Your task to perform on an android device: set default search engine in the chrome app Image 0: 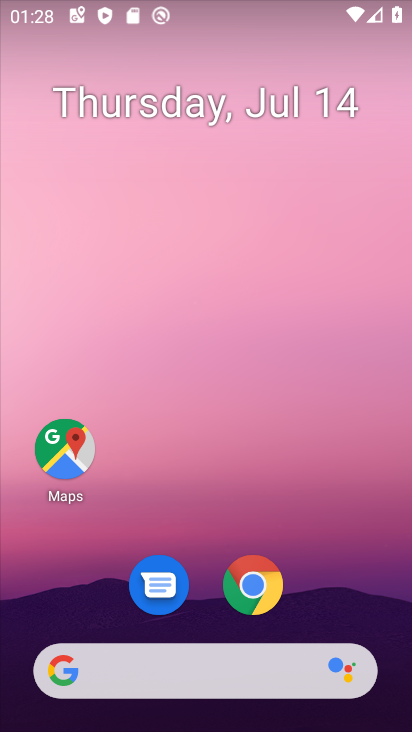
Step 0: click (255, 570)
Your task to perform on an android device: set default search engine in the chrome app Image 1: 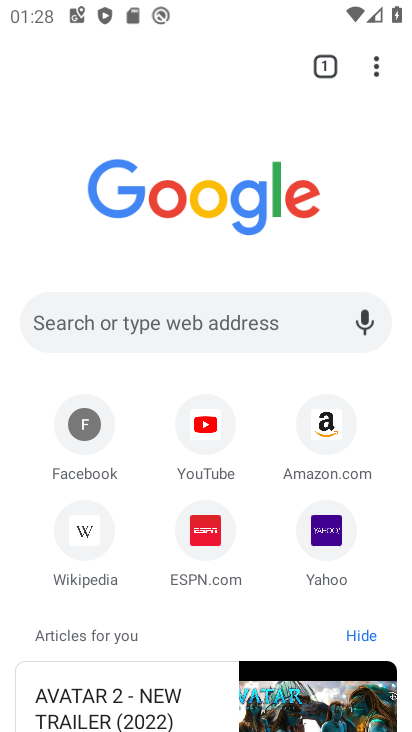
Step 1: click (376, 69)
Your task to perform on an android device: set default search engine in the chrome app Image 2: 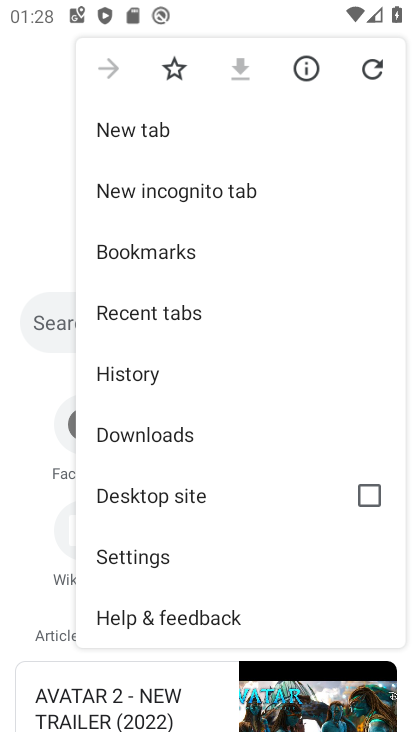
Step 2: click (178, 559)
Your task to perform on an android device: set default search engine in the chrome app Image 3: 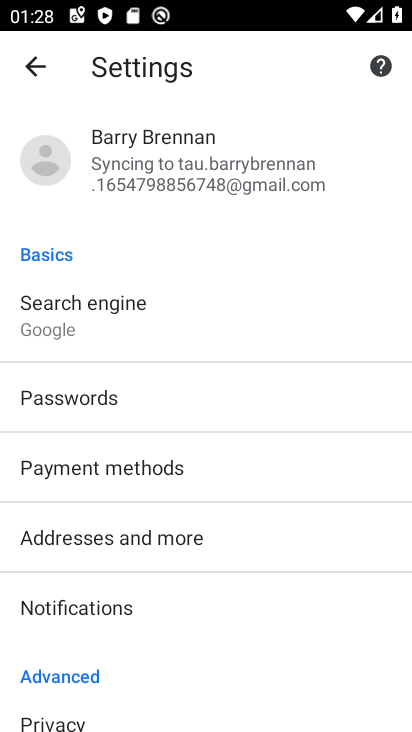
Step 3: click (119, 327)
Your task to perform on an android device: set default search engine in the chrome app Image 4: 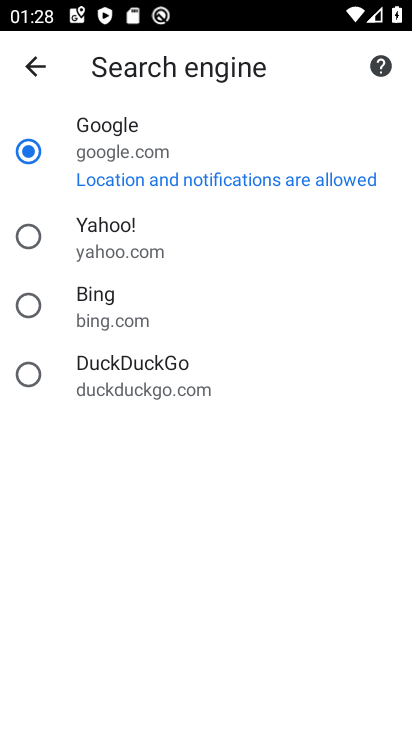
Step 4: task complete